Your task to perform on an android device: Go to Yahoo.com Image 0: 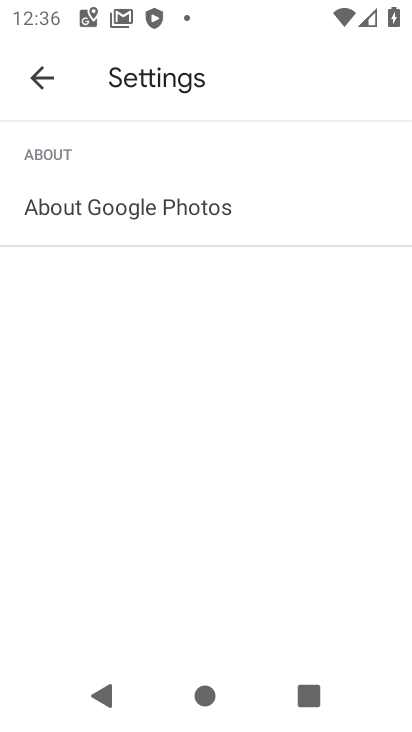
Step 0: press back button
Your task to perform on an android device: Go to Yahoo.com Image 1: 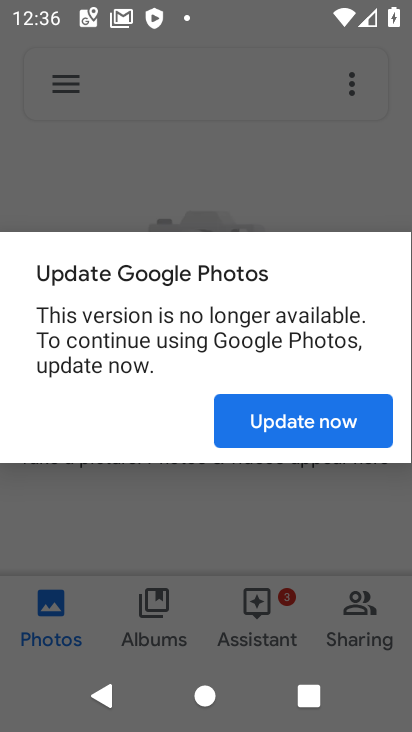
Step 1: press home button
Your task to perform on an android device: Go to Yahoo.com Image 2: 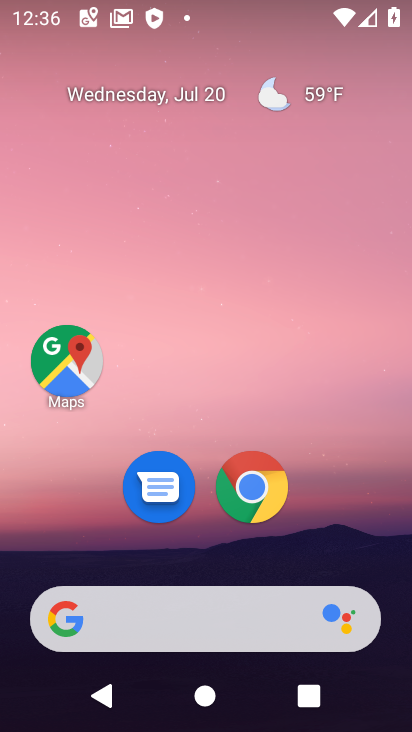
Step 2: click (271, 488)
Your task to perform on an android device: Go to Yahoo.com Image 3: 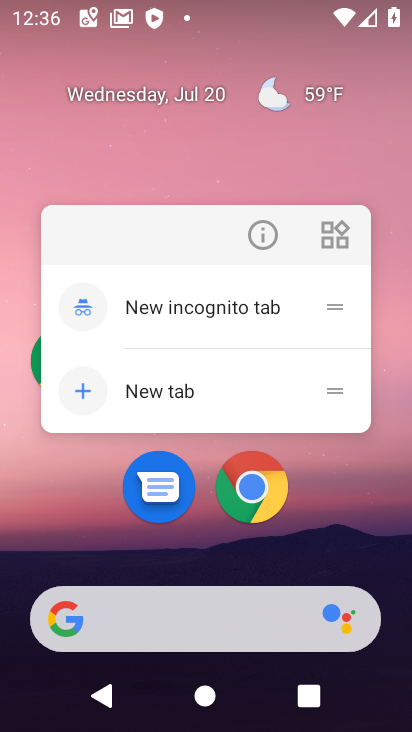
Step 3: click (226, 485)
Your task to perform on an android device: Go to Yahoo.com Image 4: 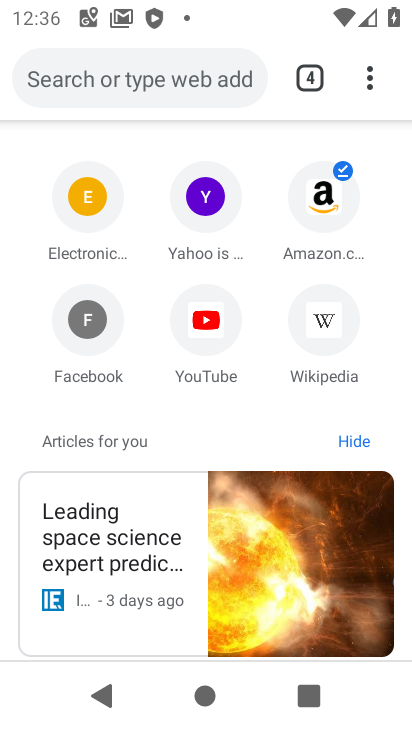
Step 4: click (208, 216)
Your task to perform on an android device: Go to Yahoo.com Image 5: 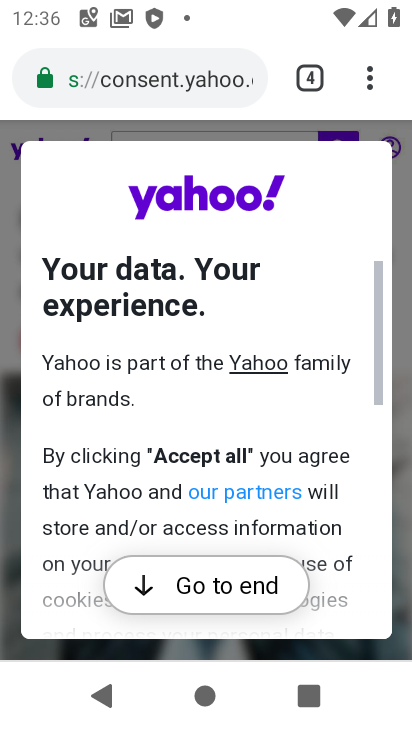
Step 5: task complete